Your task to perform on an android device: turn on priority inbox in the gmail app Image 0: 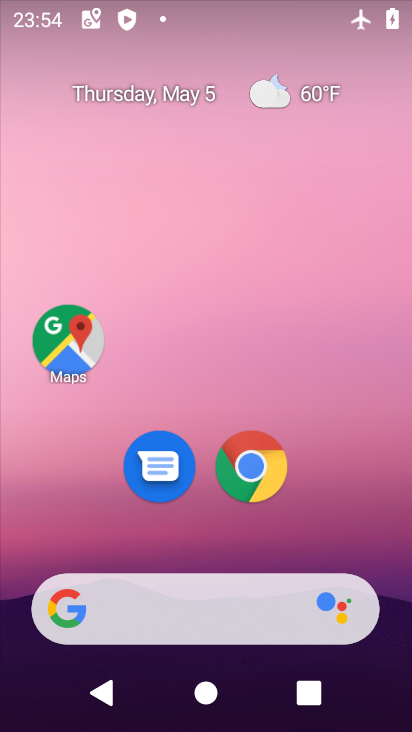
Step 0: click (388, 512)
Your task to perform on an android device: turn on priority inbox in the gmail app Image 1: 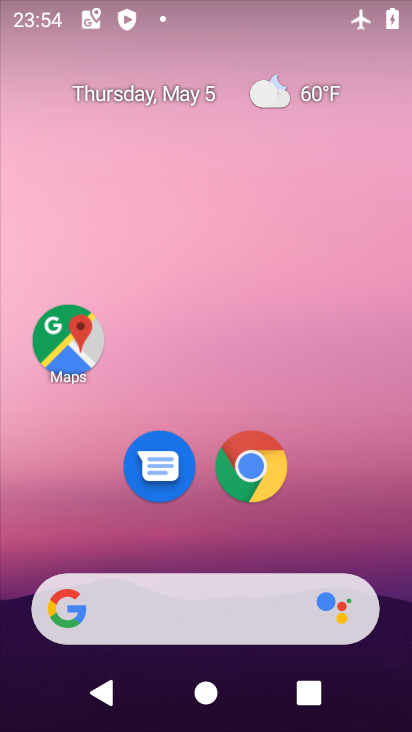
Step 1: drag from (168, 579) to (235, 211)
Your task to perform on an android device: turn on priority inbox in the gmail app Image 2: 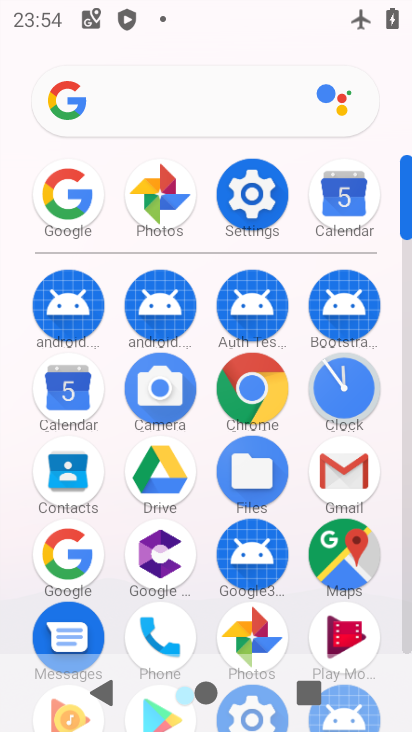
Step 2: click (340, 464)
Your task to perform on an android device: turn on priority inbox in the gmail app Image 3: 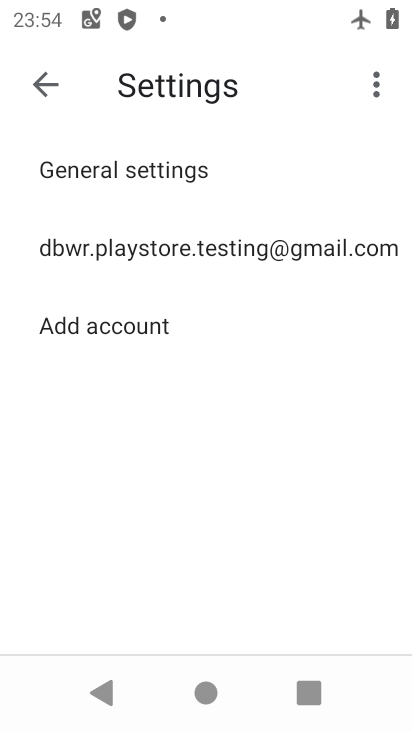
Step 3: click (85, 245)
Your task to perform on an android device: turn on priority inbox in the gmail app Image 4: 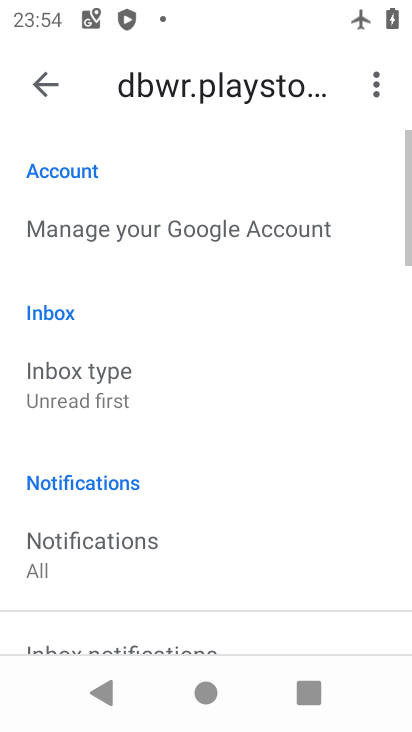
Step 4: click (103, 397)
Your task to perform on an android device: turn on priority inbox in the gmail app Image 5: 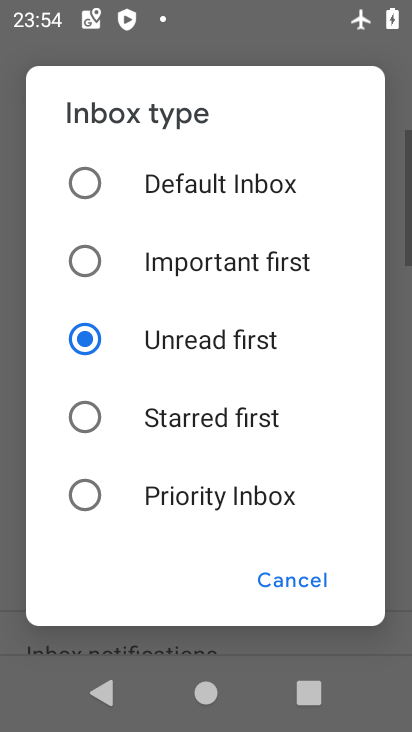
Step 5: click (121, 503)
Your task to perform on an android device: turn on priority inbox in the gmail app Image 6: 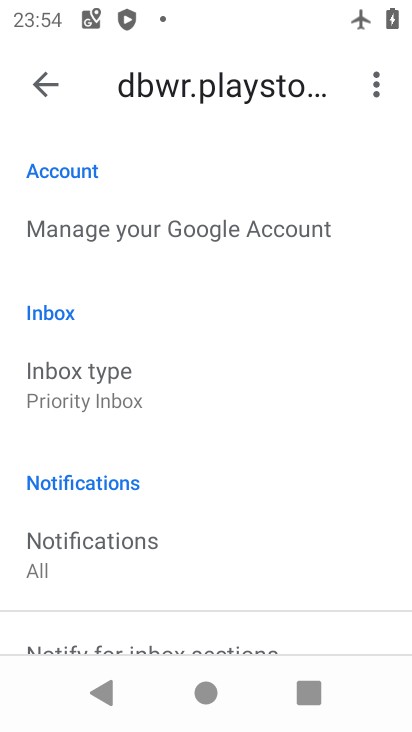
Step 6: task complete